Your task to perform on an android device: toggle pop-ups in chrome Image 0: 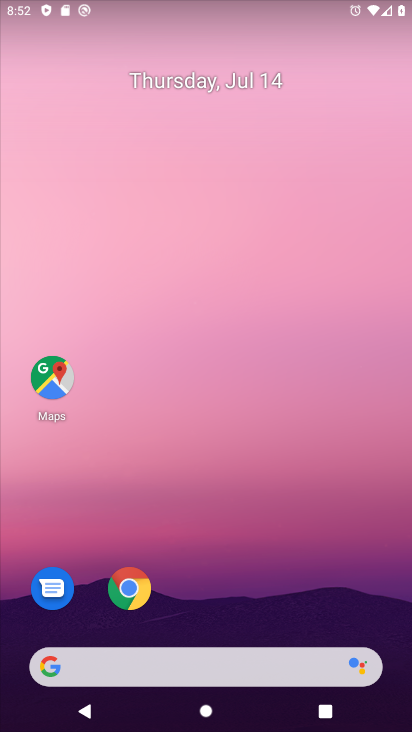
Step 0: drag from (227, 502) to (83, 0)
Your task to perform on an android device: toggle pop-ups in chrome Image 1: 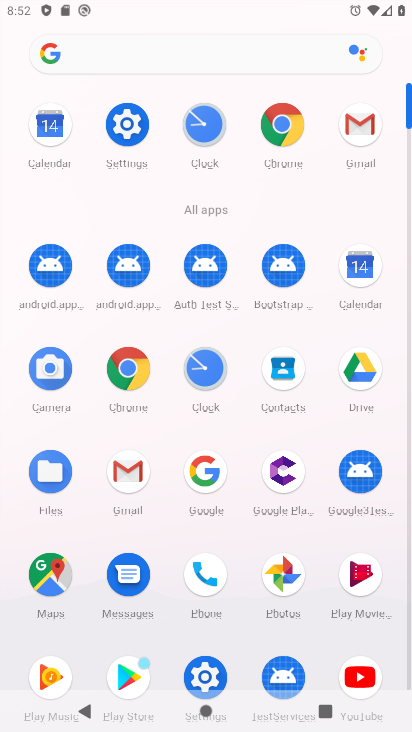
Step 1: click (295, 132)
Your task to perform on an android device: toggle pop-ups in chrome Image 2: 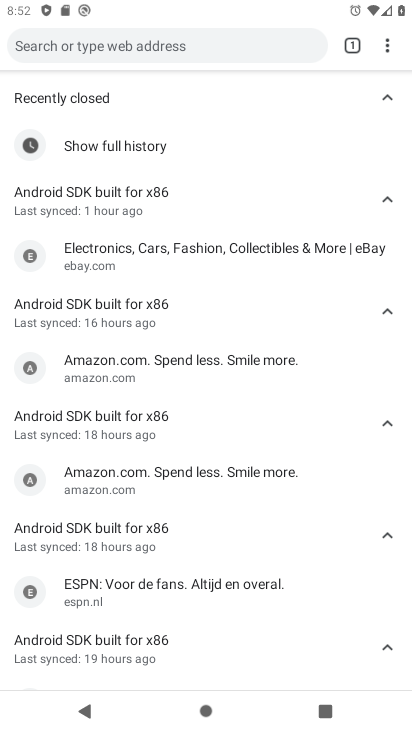
Step 2: drag from (386, 50) to (250, 380)
Your task to perform on an android device: toggle pop-ups in chrome Image 3: 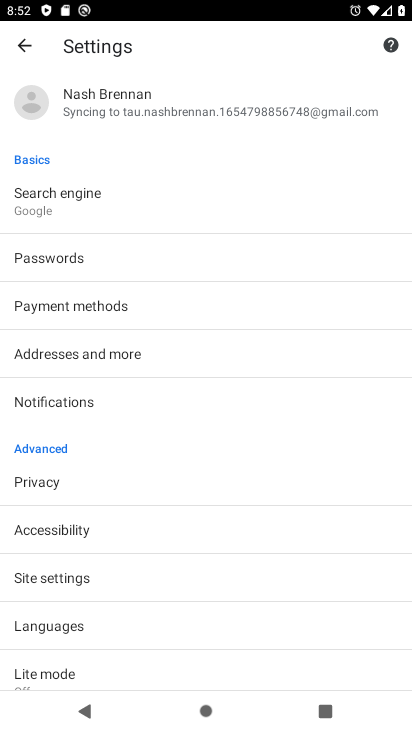
Step 3: click (63, 571)
Your task to perform on an android device: toggle pop-ups in chrome Image 4: 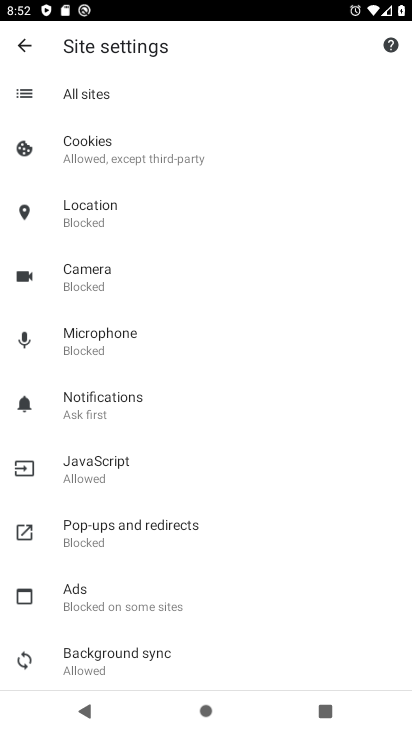
Step 4: click (70, 537)
Your task to perform on an android device: toggle pop-ups in chrome Image 5: 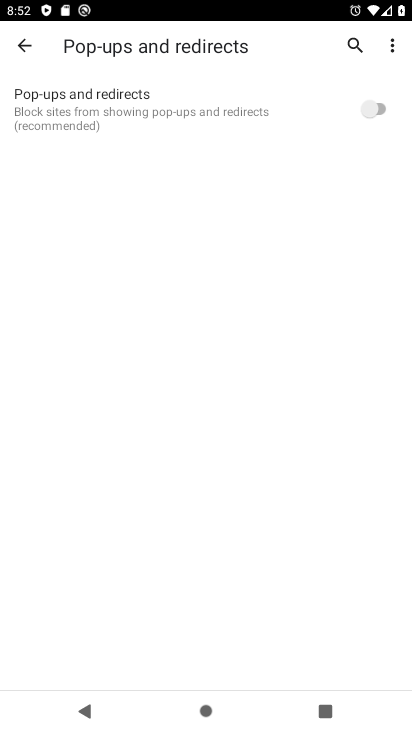
Step 5: click (373, 102)
Your task to perform on an android device: toggle pop-ups in chrome Image 6: 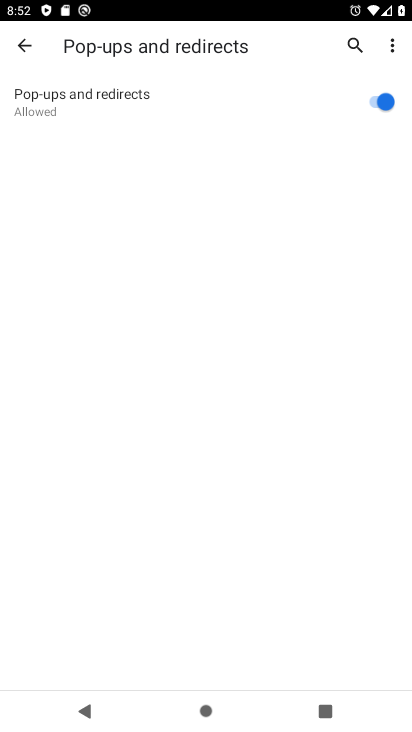
Step 6: task complete